Your task to perform on an android device: Play some music on YouTube Image 0: 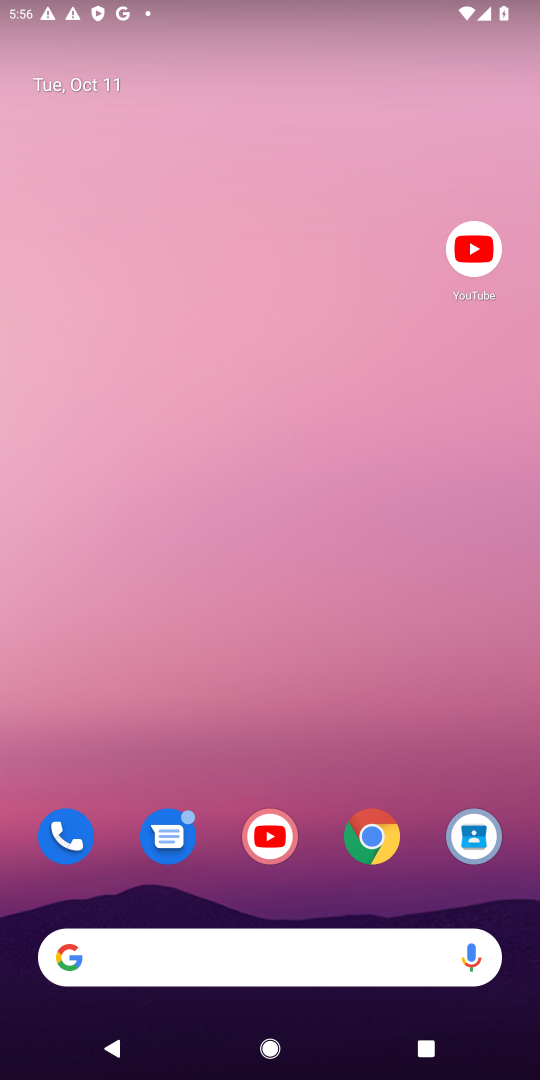
Step 0: click (270, 841)
Your task to perform on an android device: Play some music on YouTube Image 1: 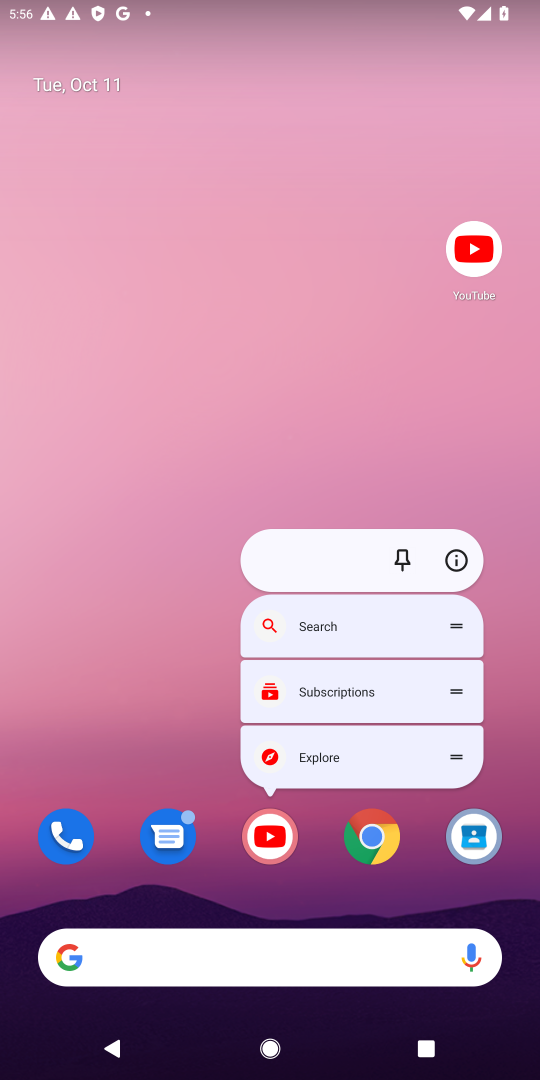
Step 1: click (270, 838)
Your task to perform on an android device: Play some music on YouTube Image 2: 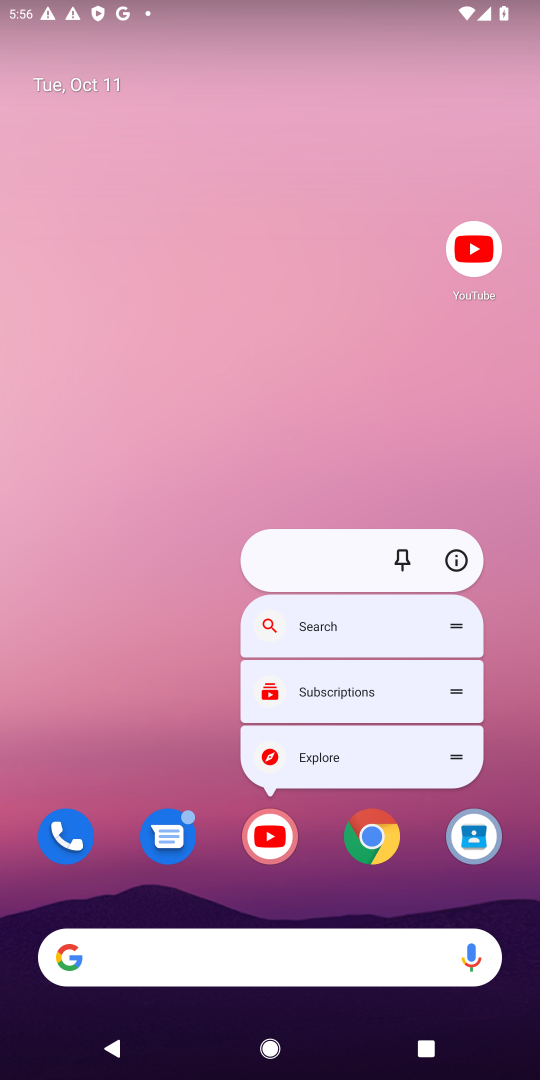
Step 2: click (260, 831)
Your task to perform on an android device: Play some music on YouTube Image 3: 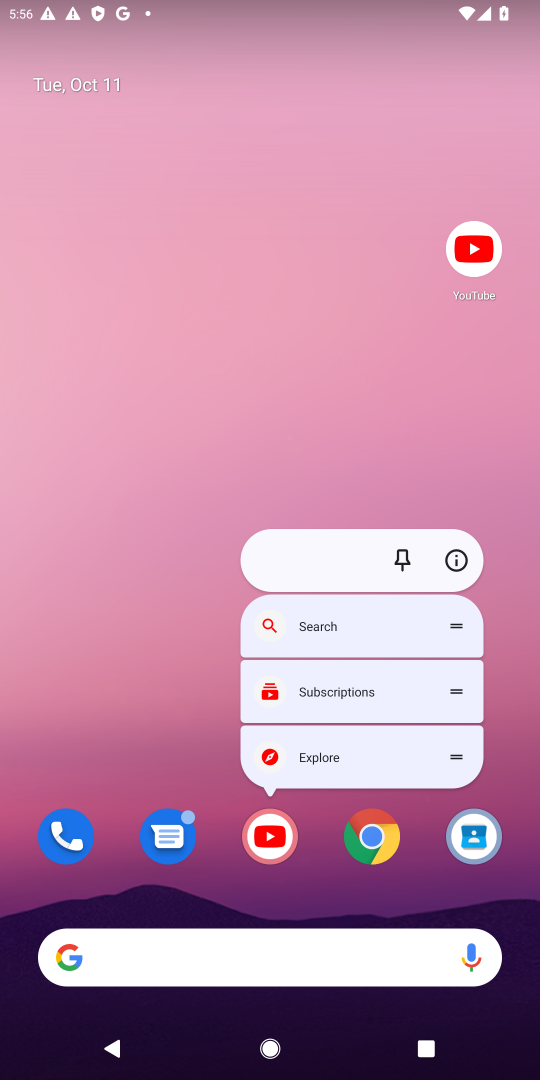
Step 3: click (271, 828)
Your task to perform on an android device: Play some music on YouTube Image 4: 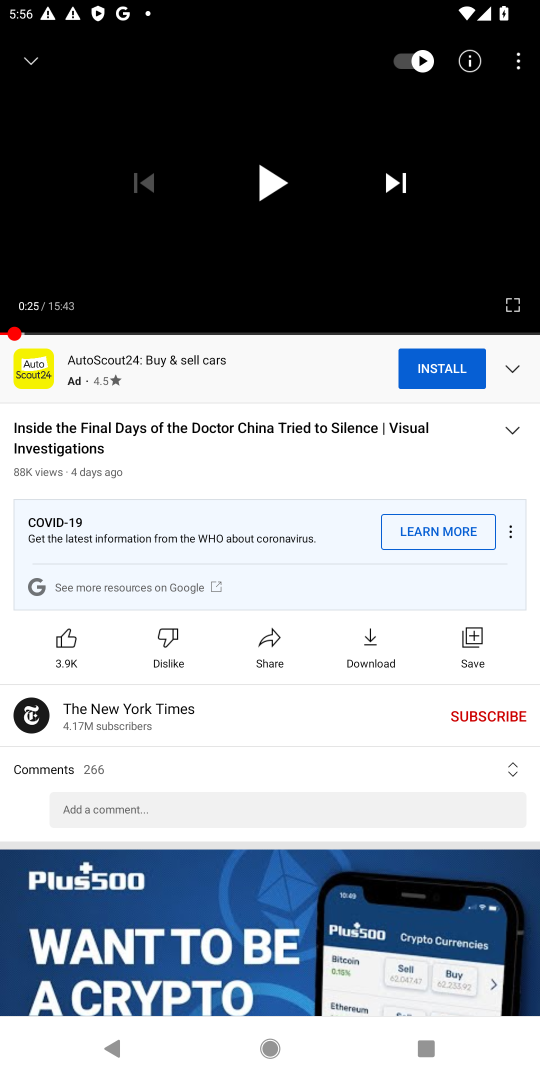
Step 4: press back button
Your task to perform on an android device: Play some music on YouTube Image 5: 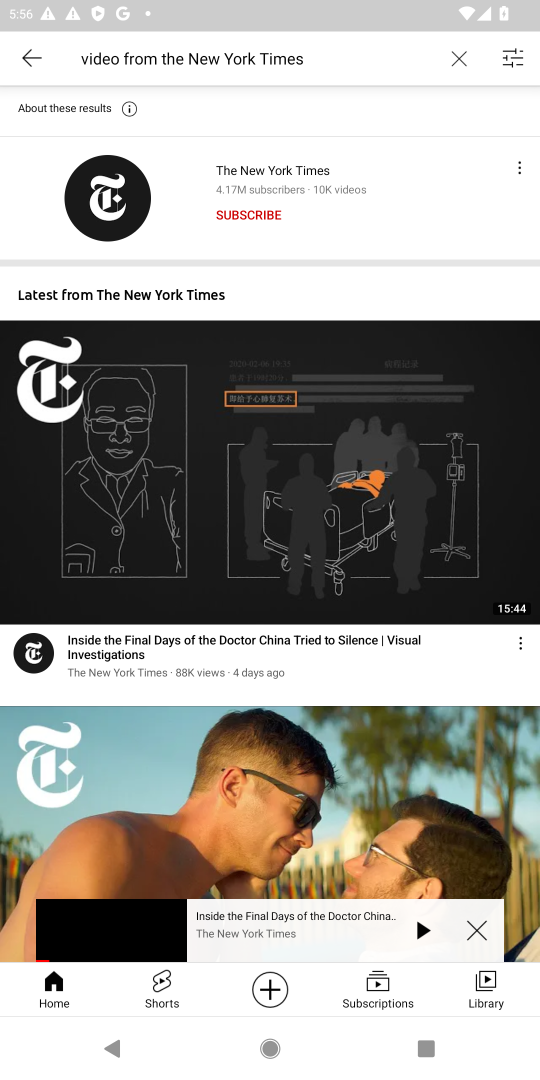
Step 5: click (455, 56)
Your task to perform on an android device: Play some music on YouTube Image 6: 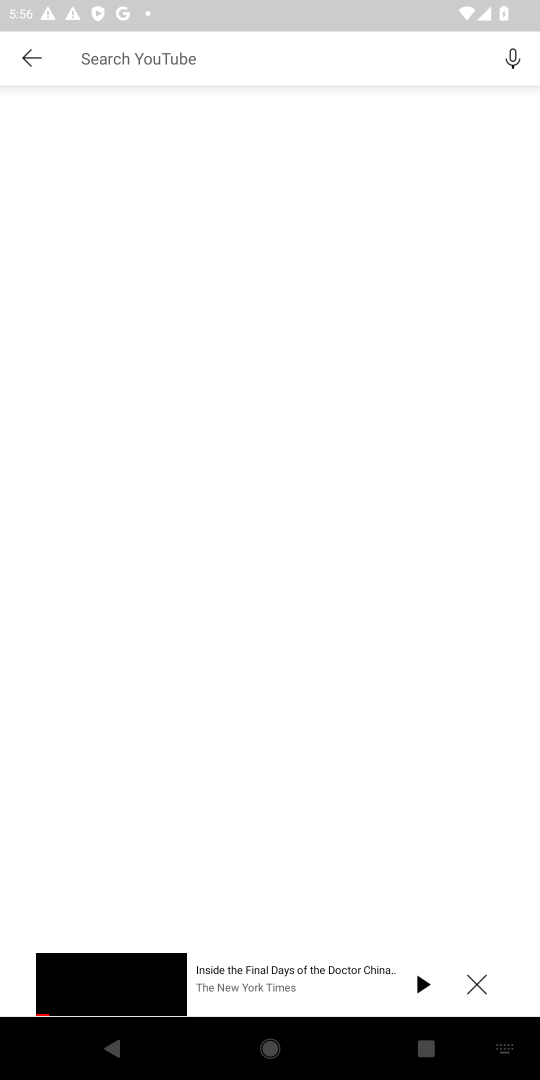
Step 6: click (480, 980)
Your task to perform on an android device: Play some music on YouTube Image 7: 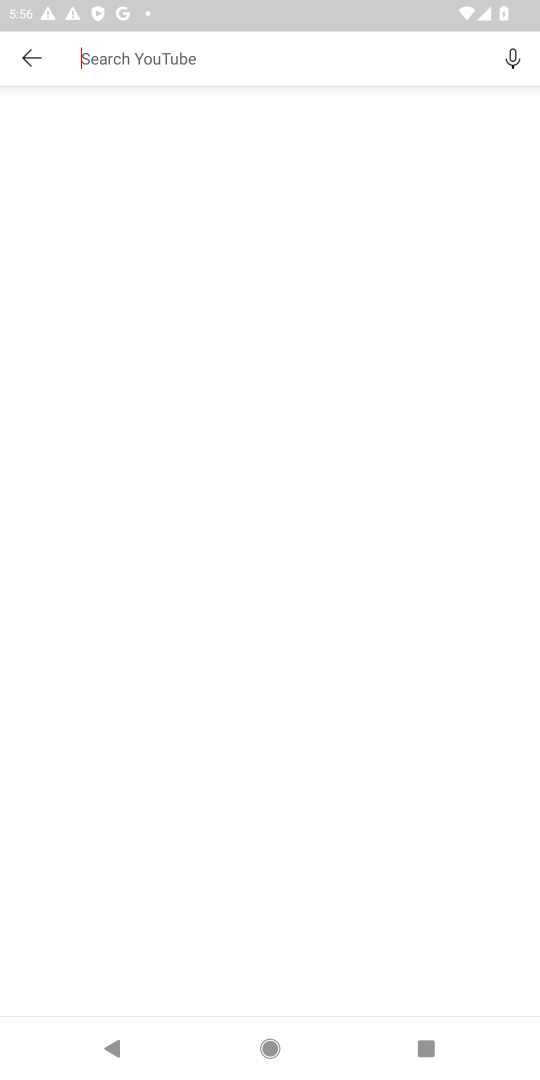
Step 7: click (285, 73)
Your task to perform on an android device: Play some music on YouTube Image 8: 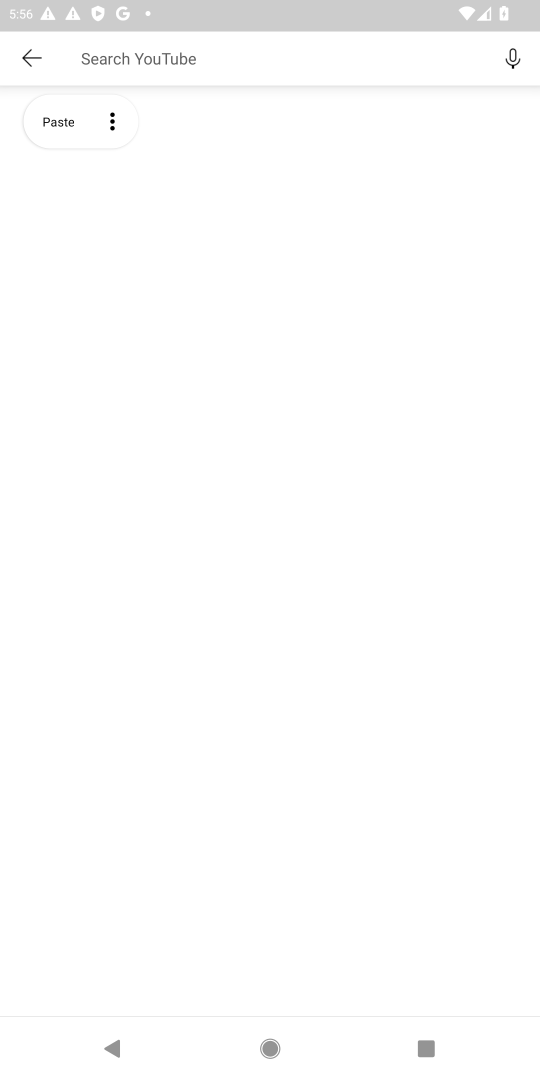
Step 8: type "some music"
Your task to perform on an android device: Play some music on YouTube Image 9: 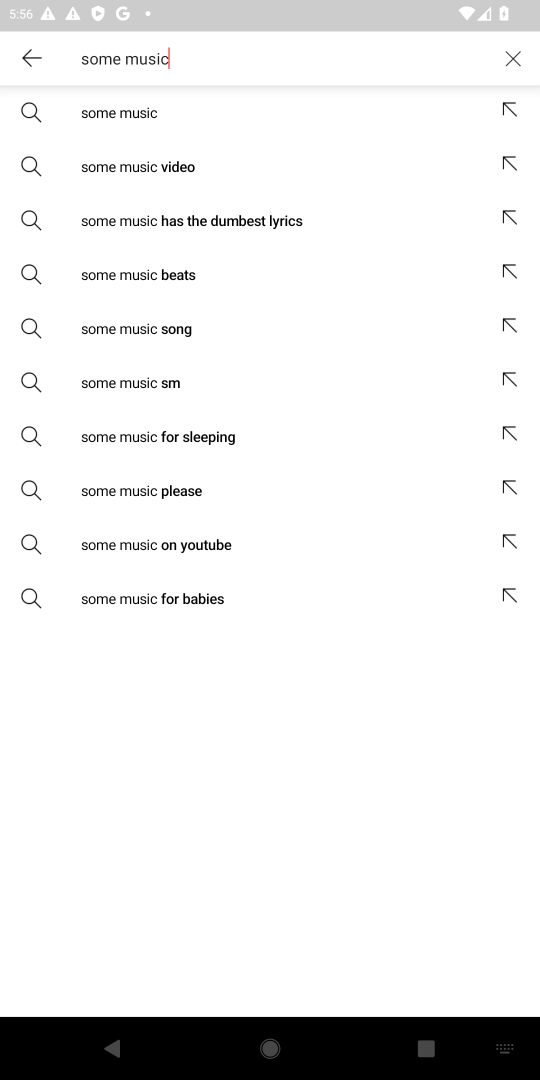
Step 9: press enter
Your task to perform on an android device: Play some music on YouTube Image 10: 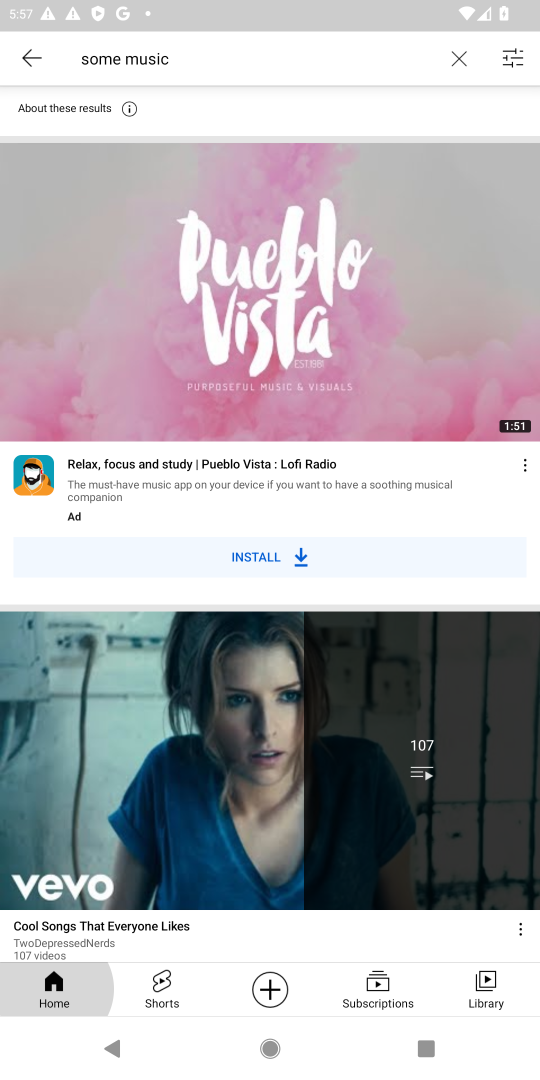
Step 10: click (274, 281)
Your task to perform on an android device: Play some music on YouTube Image 11: 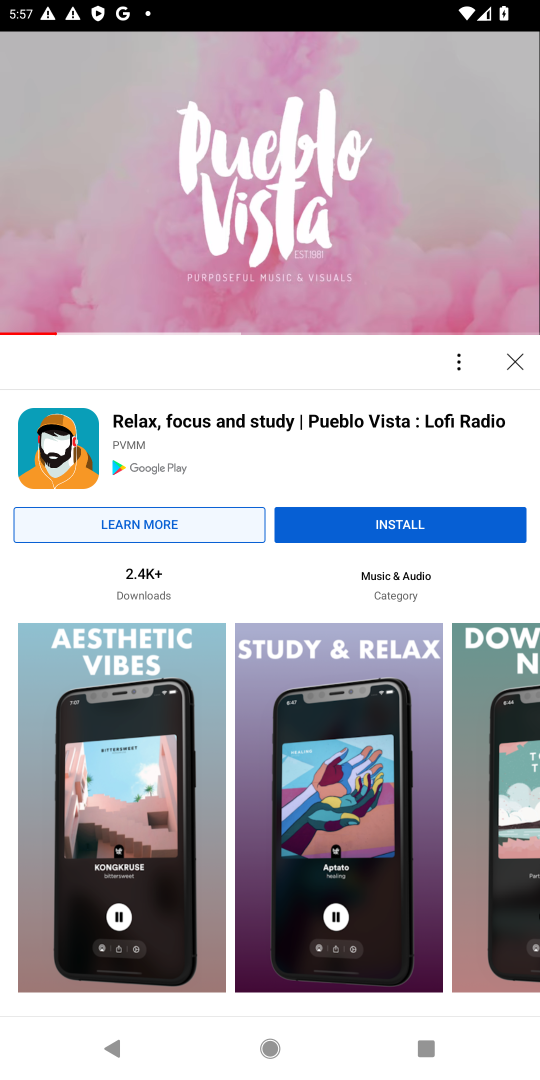
Step 11: click (279, 198)
Your task to perform on an android device: Play some music on YouTube Image 12: 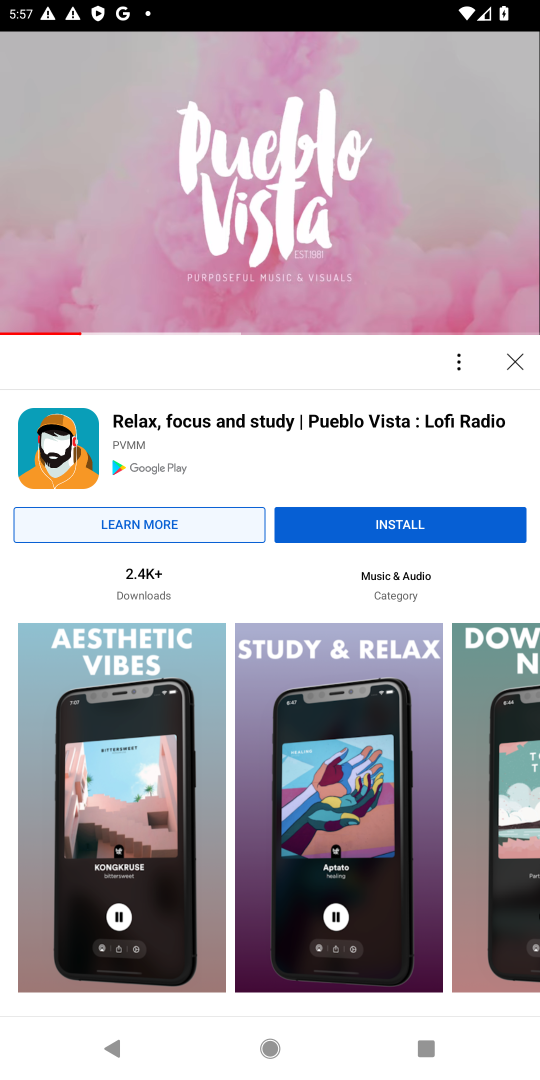
Step 12: click (258, 153)
Your task to perform on an android device: Play some music on YouTube Image 13: 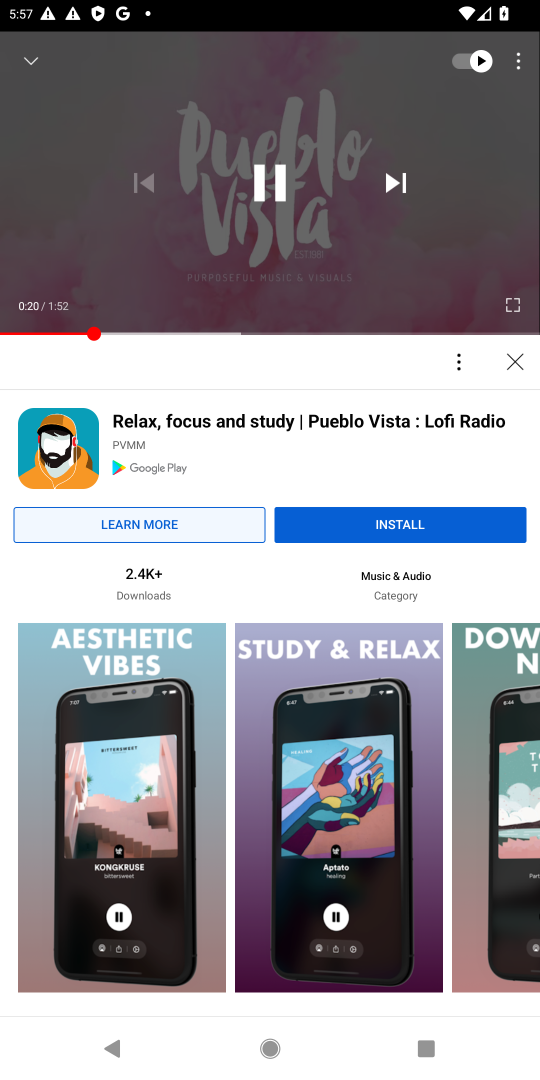
Step 13: click (276, 170)
Your task to perform on an android device: Play some music on YouTube Image 14: 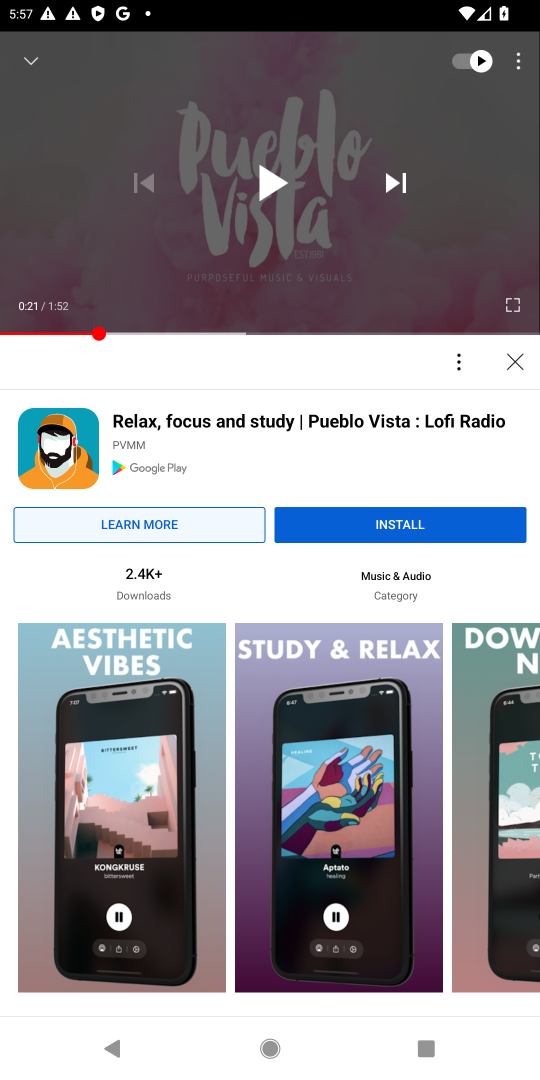
Step 14: task complete